Your task to perform on an android device: manage bookmarks in the chrome app Image 0: 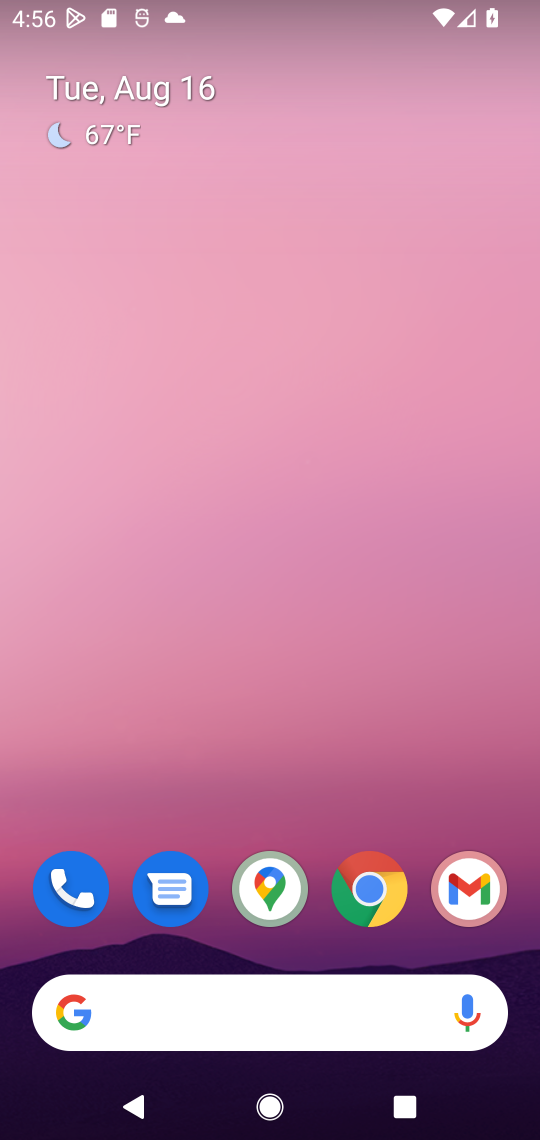
Step 0: click (529, 740)
Your task to perform on an android device: manage bookmarks in the chrome app Image 1: 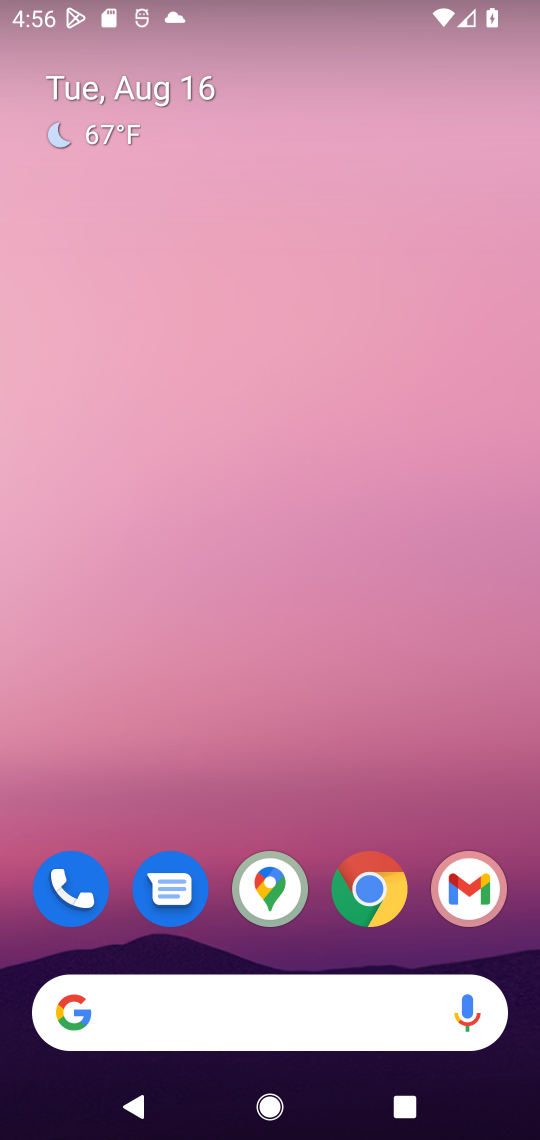
Step 1: click (385, 893)
Your task to perform on an android device: manage bookmarks in the chrome app Image 2: 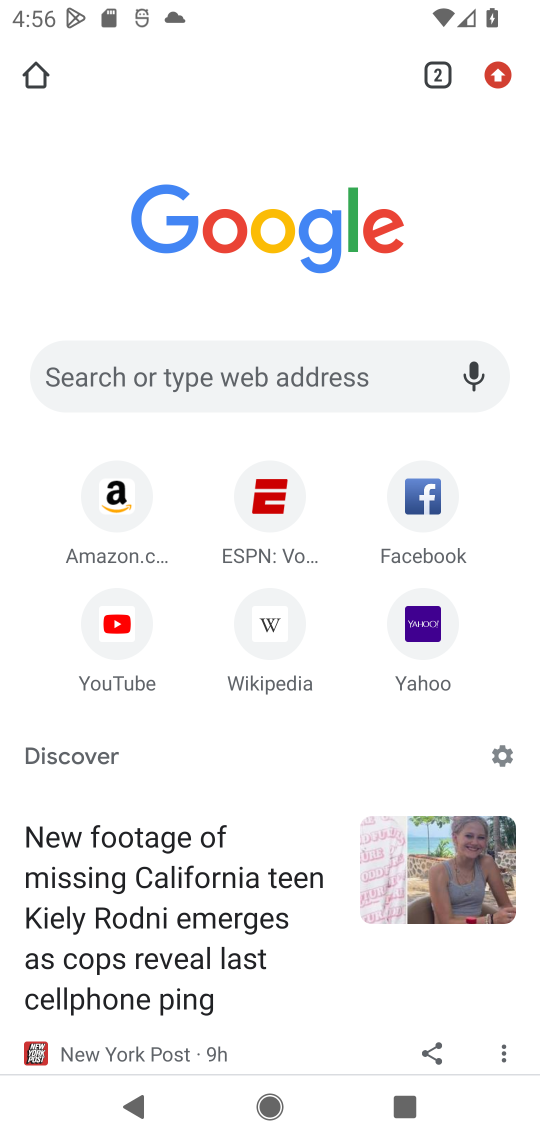
Step 2: click (493, 74)
Your task to perform on an android device: manage bookmarks in the chrome app Image 3: 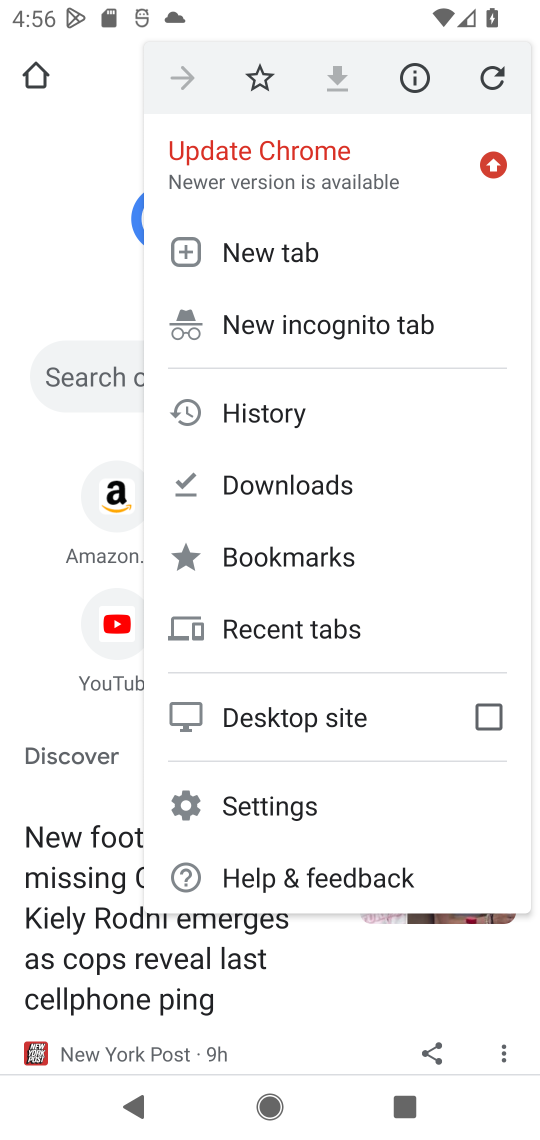
Step 3: click (285, 564)
Your task to perform on an android device: manage bookmarks in the chrome app Image 4: 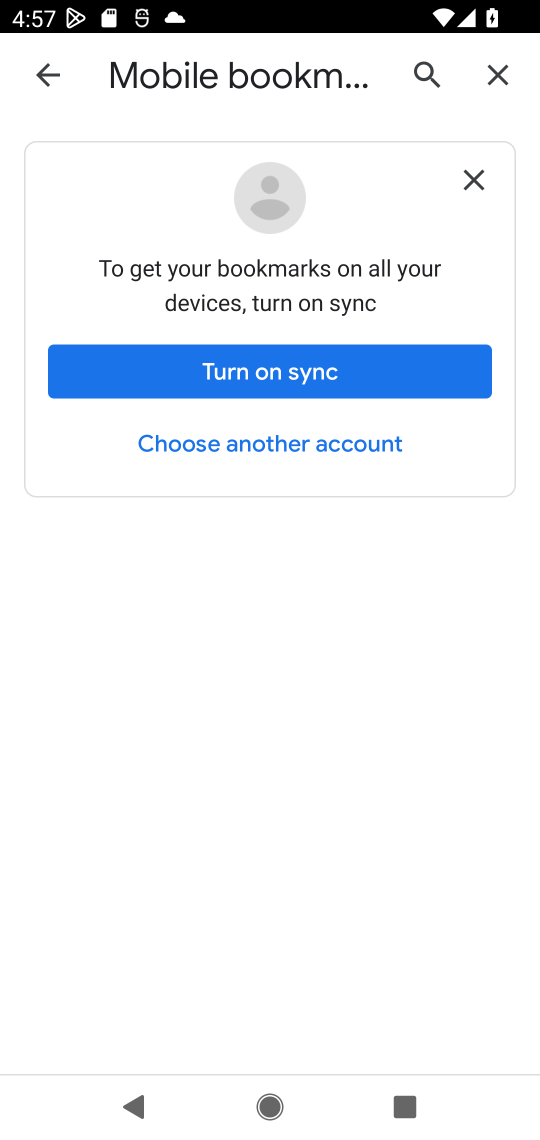
Step 4: task complete